Your task to perform on an android device: Open settings on Google Maps Image 0: 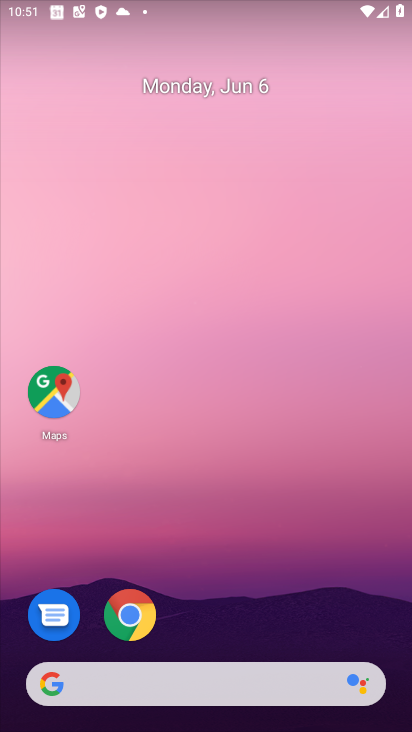
Step 0: click (69, 400)
Your task to perform on an android device: Open settings on Google Maps Image 1: 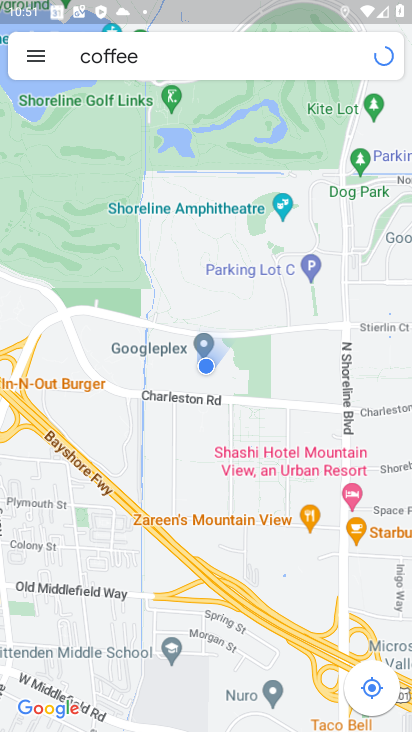
Step 1: click (47, 57)
Your task to perform on an android device: Open settings on Google Maps Image 2: 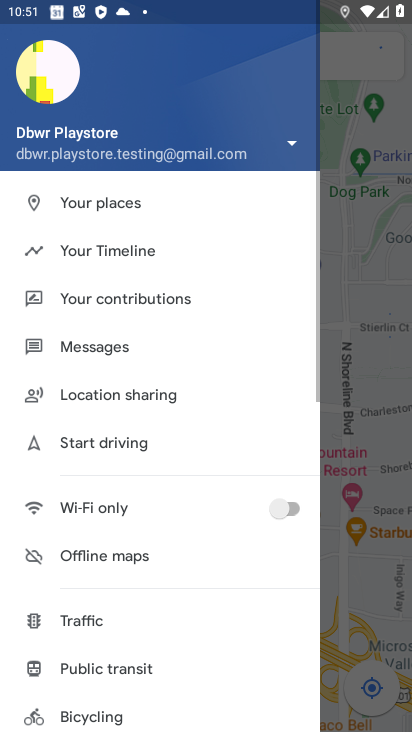
Step 2: task complete